Your task to perform on an android device: Open my contact list Image 0: 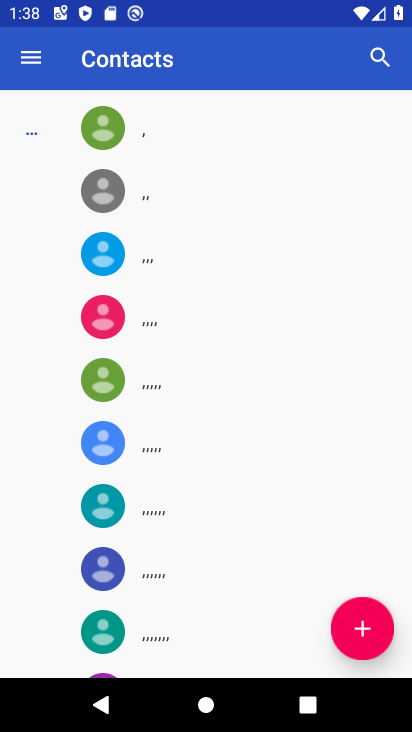
Step 0: task complete